Your task to perform on an android device: Open my contact list Image 0: 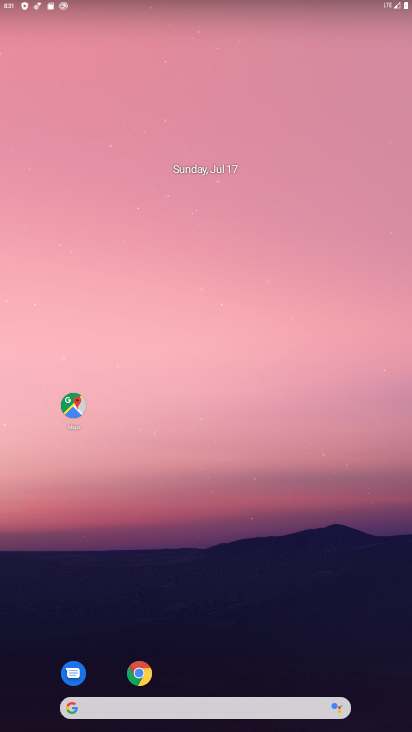
Step 0: drag from (293, 661) to (239, 62)
Your task to perform on an android device: Open my contact list Image 1: 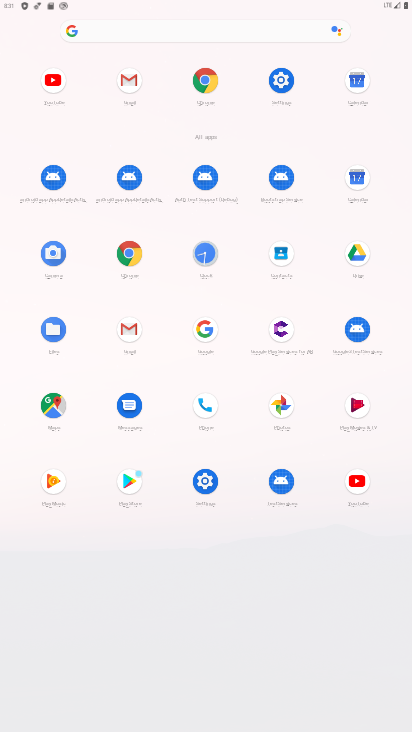
Step 1: click (276, 261)
Your task to perform on an android device: Open my contact list Image 2: 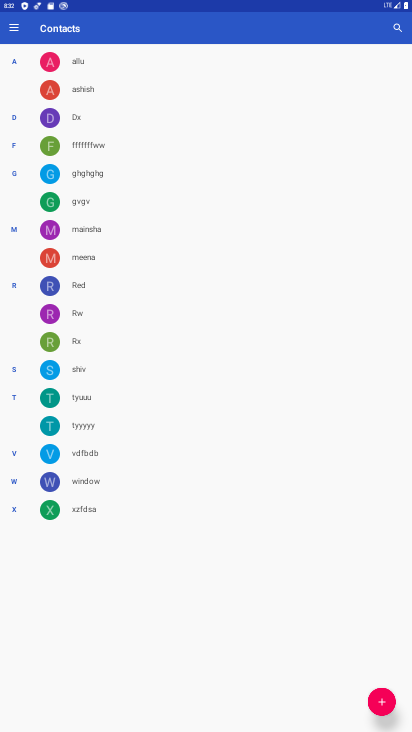
Step 2: task complete